Your task to perform on an android device: open a bookmark in the chrome app Image 0: 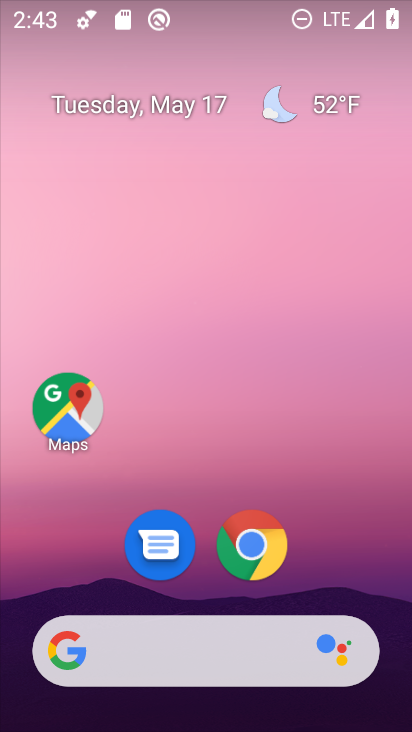
Step 0: drag from (361, 581) to (361, 185)
Your task to perform on an android device: open a bookmark in the chrome app Image 1: 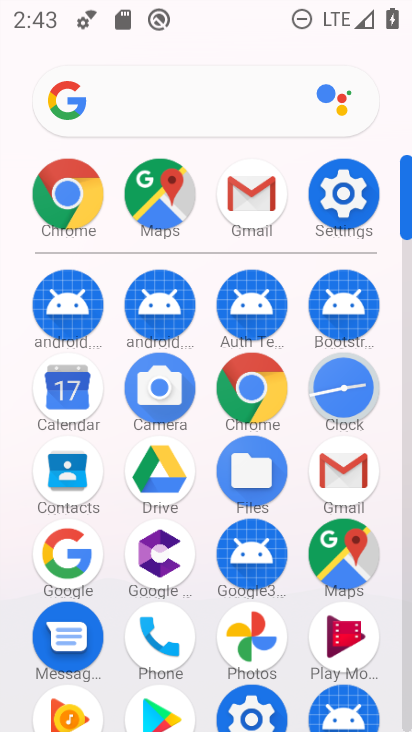
Step 1: click (261, 399)
Your task to perform on an android device: open a bookmark in the chrome app Image 2: 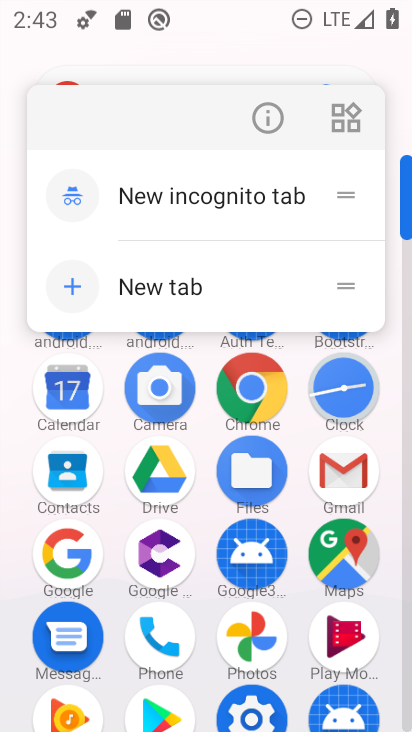
Step 2: click (261, 399)
Your task to perform on an android device: open a bookmark in the chrome app Image 3: 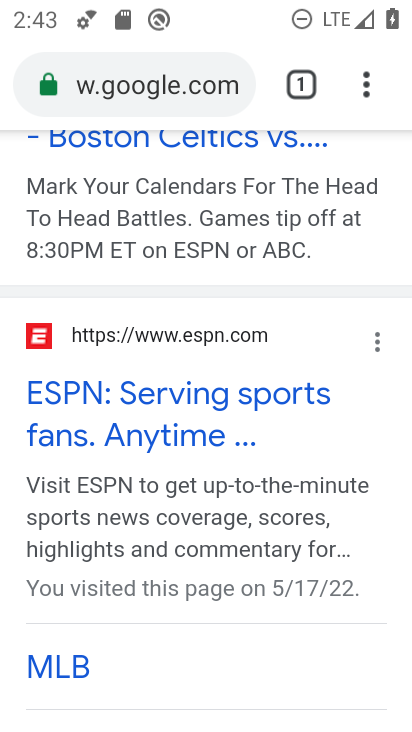
Step 3: click (364, 92)
Your task to perform on an android device: open a bookmark in the chrome app Image 4: 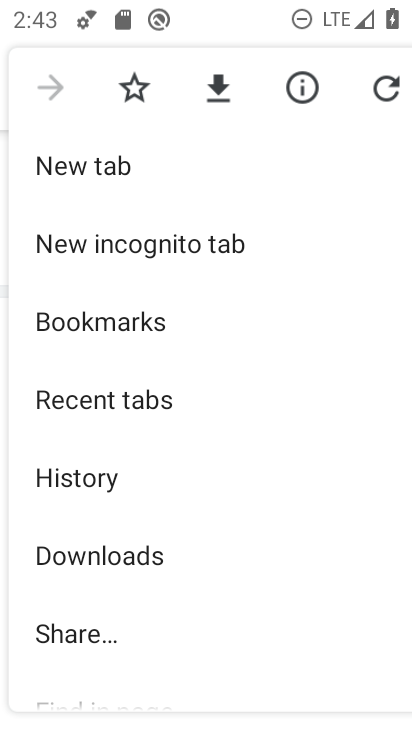
Step 4: drag from (325, 512) to (319, 401)
Your task to perform on an android device: open a bookmark in the chrome app Image 5: 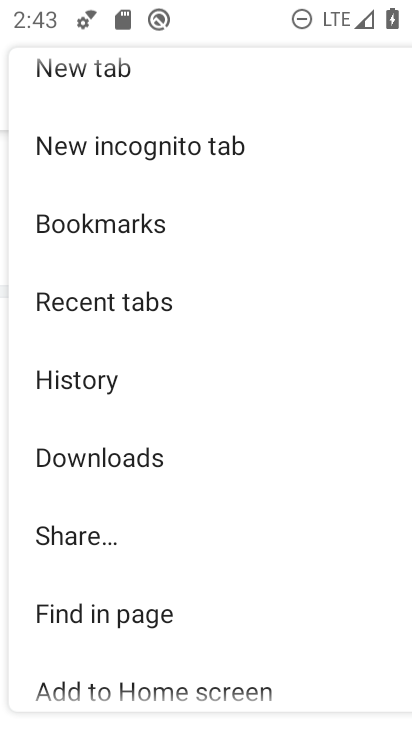
Step 5: drag from (327, 571) to (327, 425)
Your task to perform on an android device: open a bookmark in the chrome app Image 6: 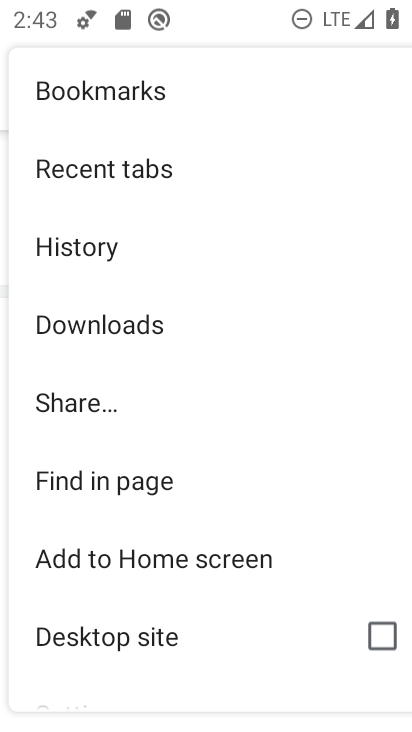
Step 6: drag from (320, 599) to (304, 409)
Your task to perform on an android device: open a bookmark in the chrome app Image 7: 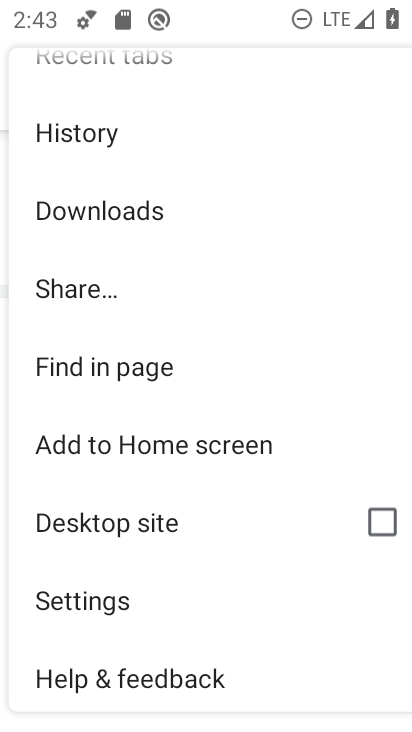
Step 7: drag from (295, 589) to (296, 418)
Your task to perform on an android device: open a bookmark in the chrome app Image 8: 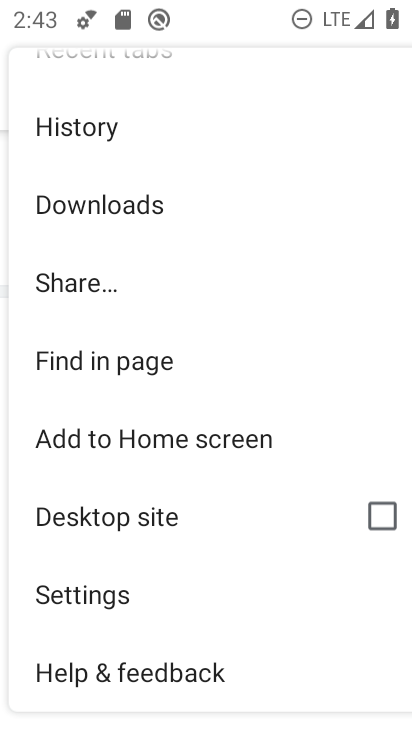
Step 8: drag from (306, 639) to (283, 443)
Your task to perform on an android device: open a bookmark in the chrome app Image 9: 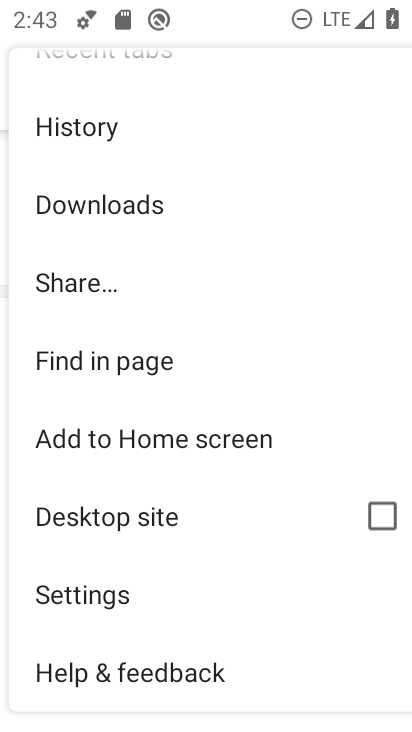
Step 9: drag from (315, 306) to (305, 410)
Your task to perform on an android device: open a bookmark in the chrome app Image 10: 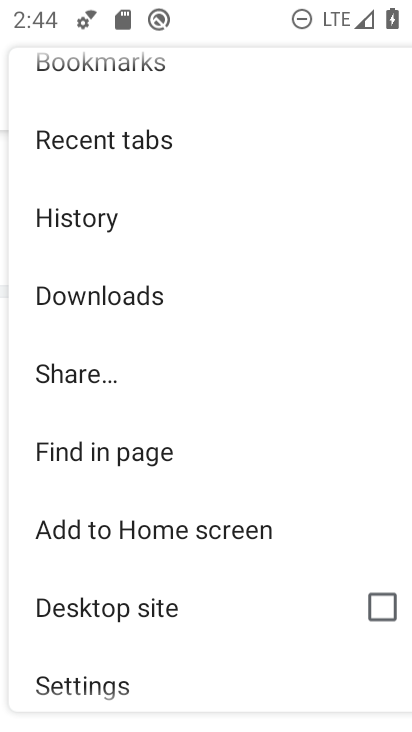
Step 10: drag from (312, 279) to (290, 411)
Your task to perform on an android device: open a bookmark in the chrome app Image 11: 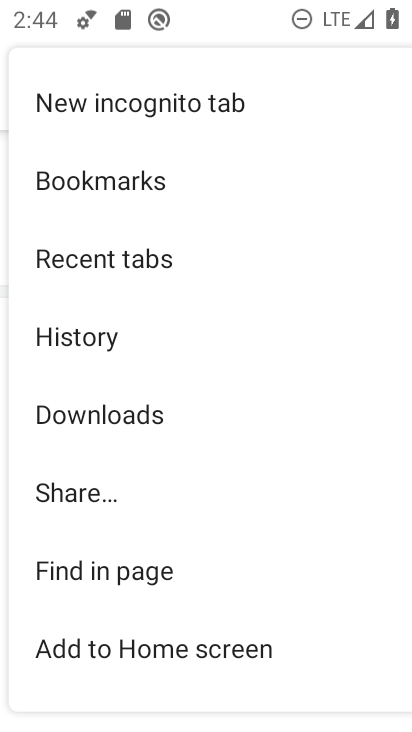
Step 11: drag from (311, 248) to (311, 359)
Your task to perform on an android device: open a bookmark in the chrome app Image 12: 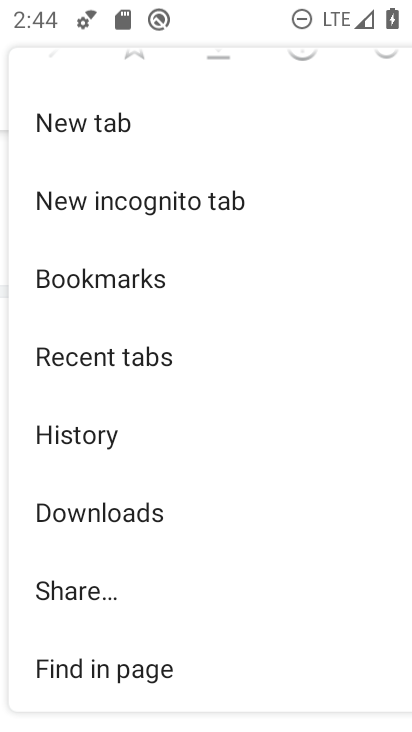
Step 12: drag from (315, 281) to (312, 385)
Your task to perform on an android device: open a bookmark in the chrome app Image 13: 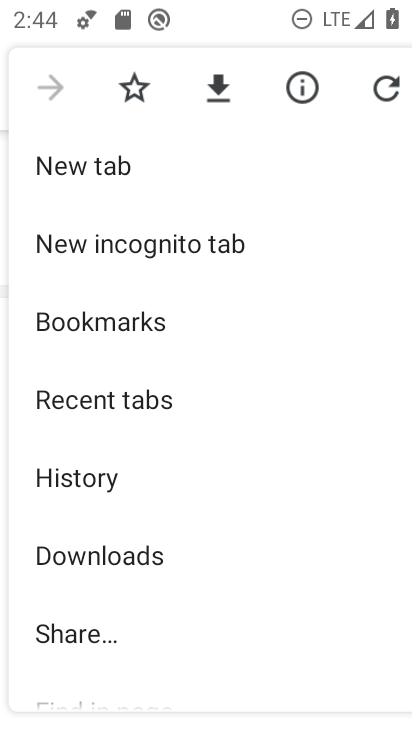
Step 13: drag from (309, 270) to (308, 359)
Your task to perform on an android device: open a bookmark in the chrome app Image 14: 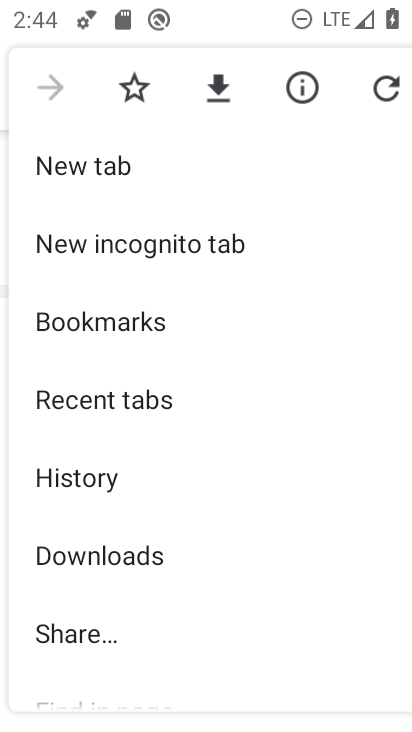
Step 14: drag from (315, 505) to (317, 384)
Your task to perform on an android device: open a bookmark in the chrome app Image 15: 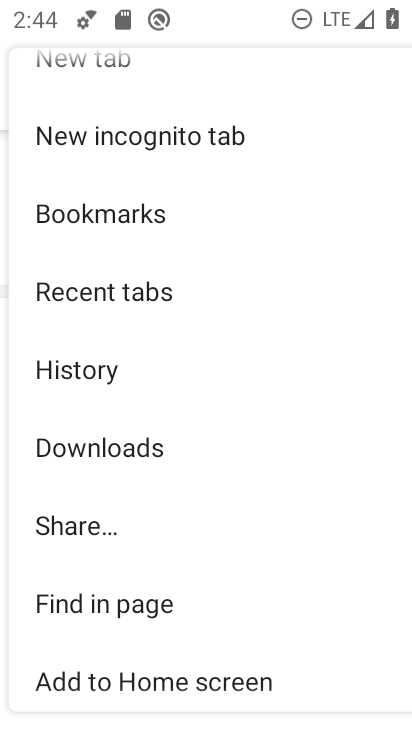
Step 15: click (147, 217)
Your task to perform on an android device: open a bookmark in the chrome app Image 16: 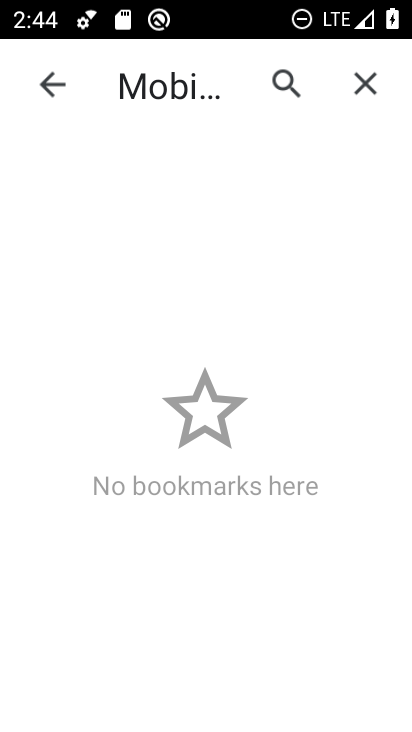
Step 16: task complete